Your task to perform on an android device: delete a single message in the gmail app Image 0: 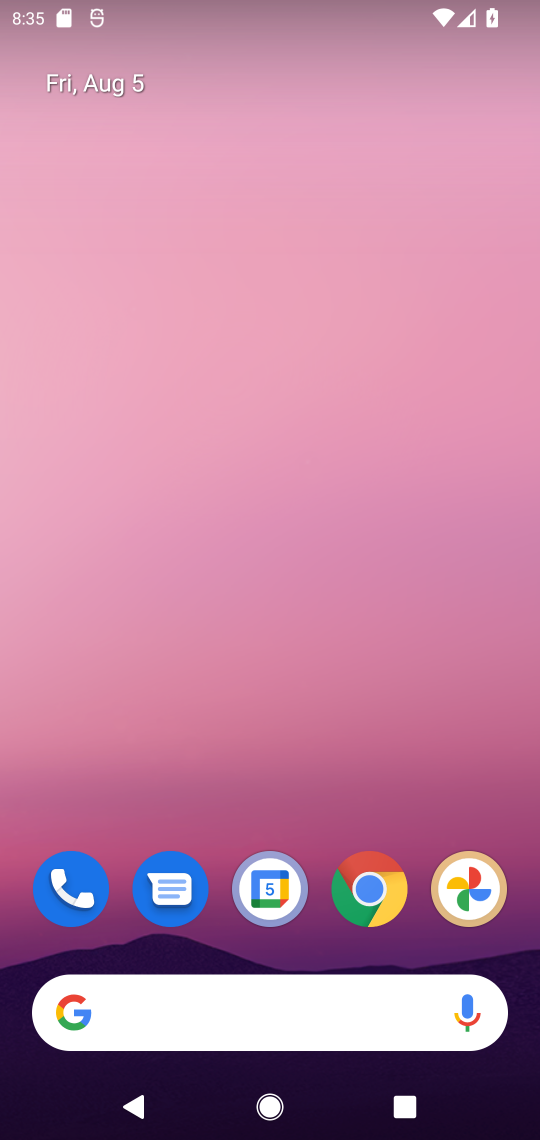
Step 0: drag from (187, 947) to (279, 266)
Your task to perform on an android device: delete a single message in the gmail app Image 1: 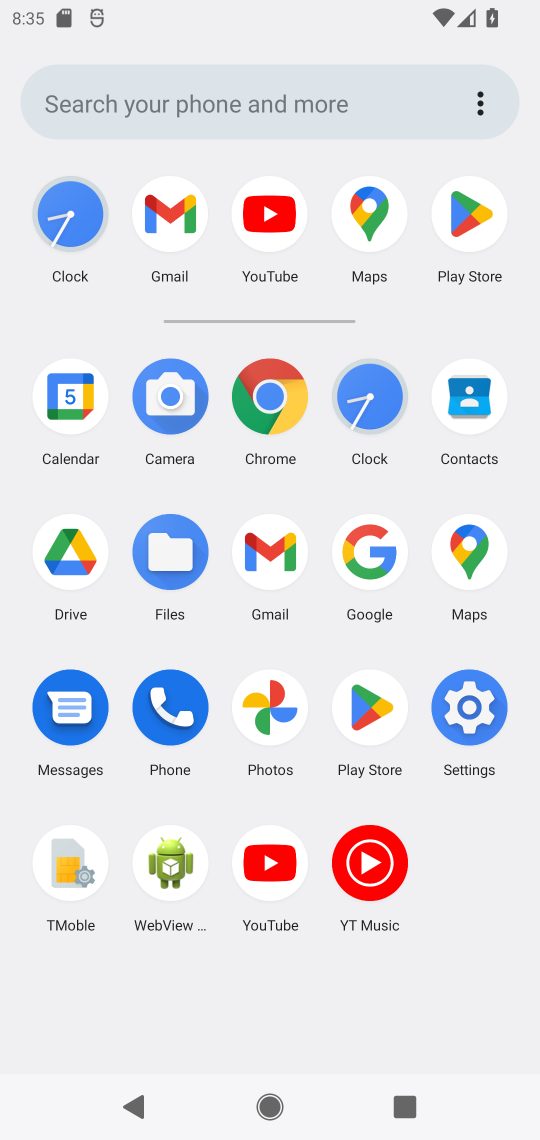
Step 1: click (274, 555)
Your task to perform on an android device: delete a single message in the gmail app Image 2: 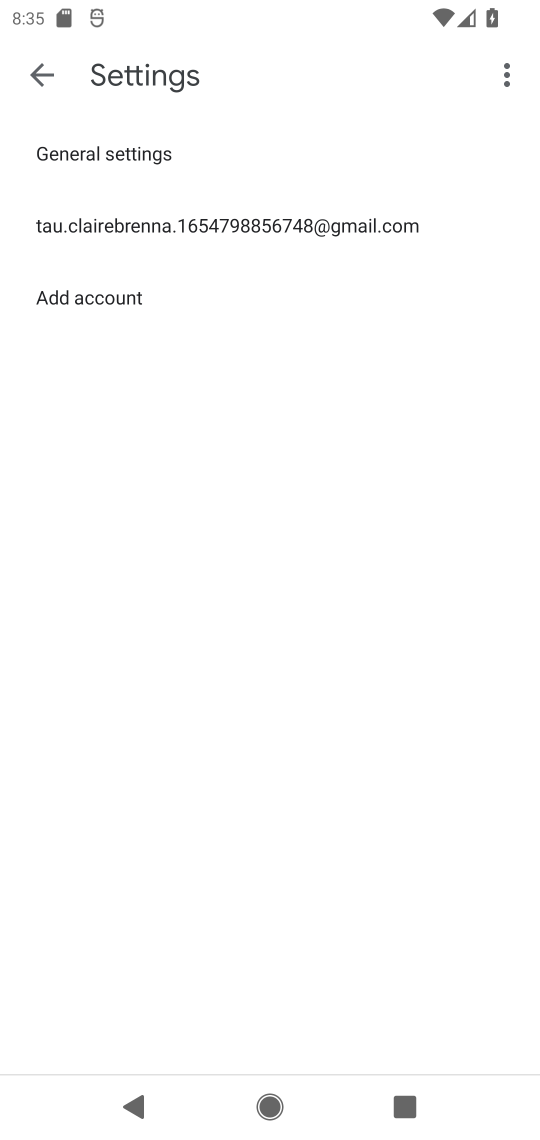
Step 2: click (31, 69)
Your task to perform on an android device: delete a single message in the gmail app Image 3: 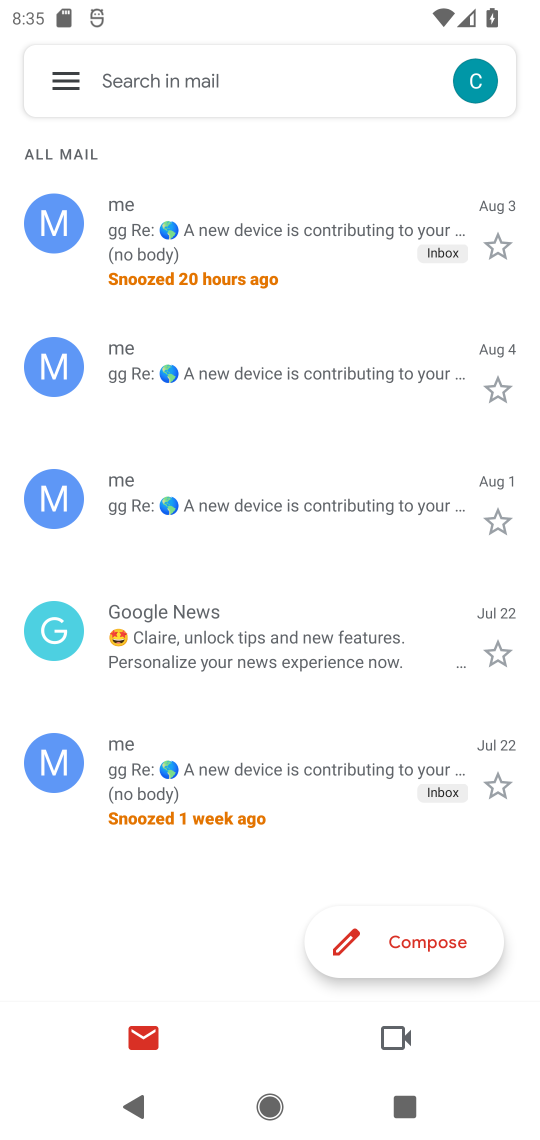
Step 3: click (152, 221)
Your task to perform on an android device: delete a single message in the gmail app Image 4: 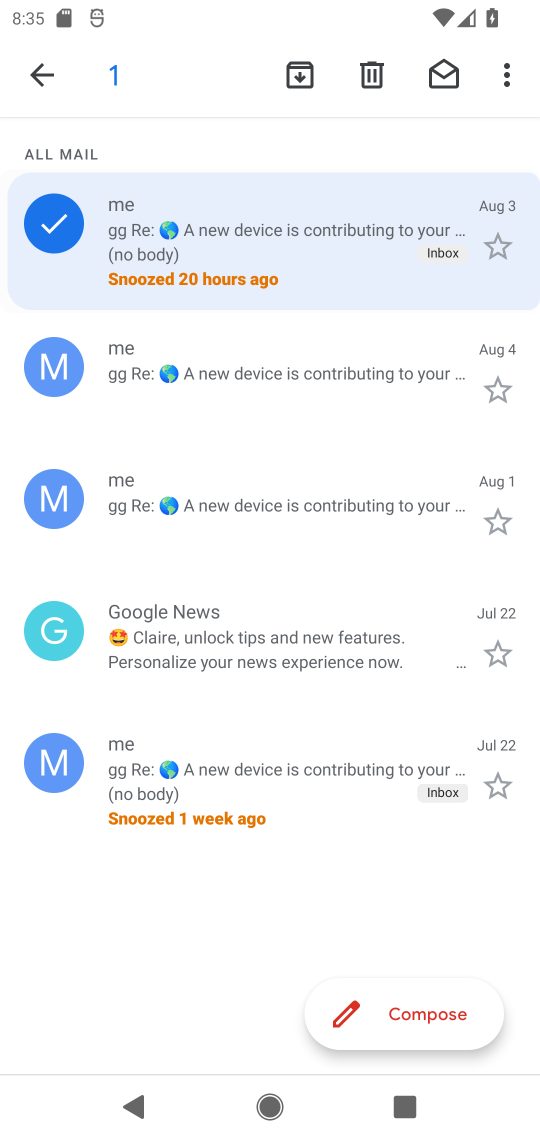
Step 4: click (371, 75)
Your task to perform on an android device: delete a single message in the gmail app Image 5: 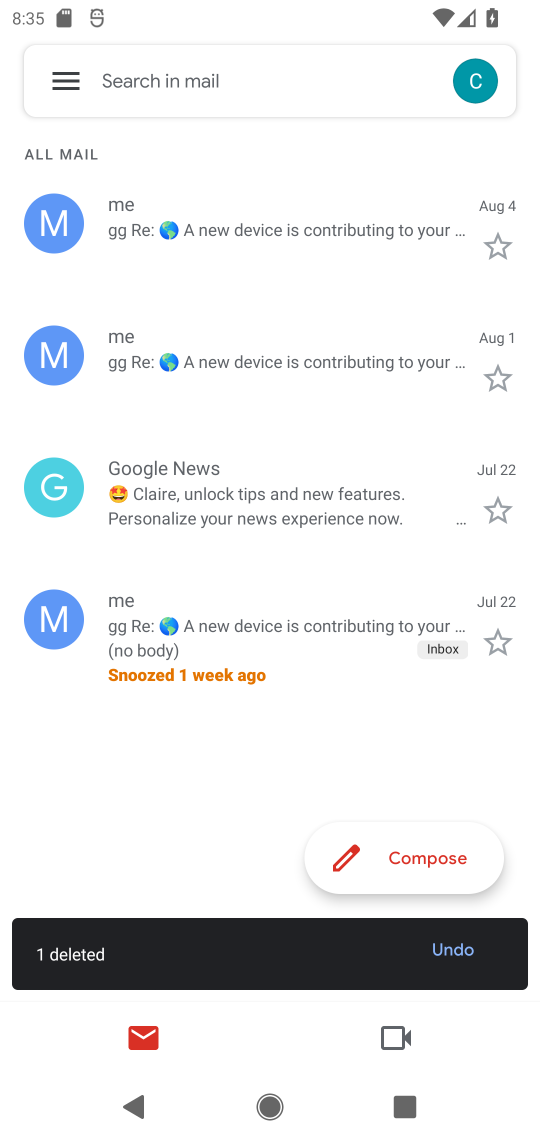
Step 5: task complete